Your task to perform on an android device: toggle show notifications on the lock screen Image 0: 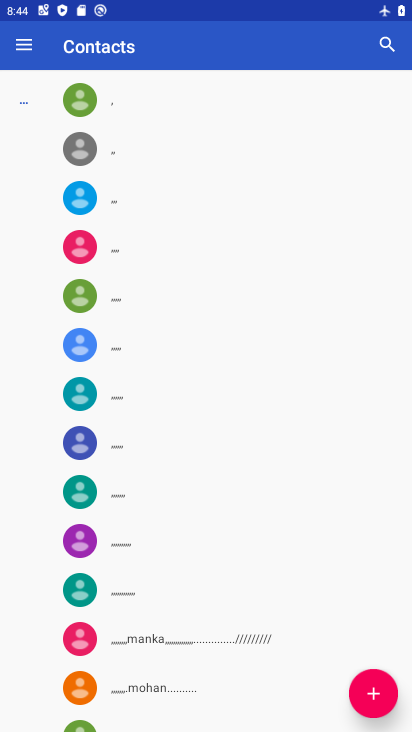
Step 0: press home button
Your task to perform on an android device: toggle show notifications on the lock screen Image 1: 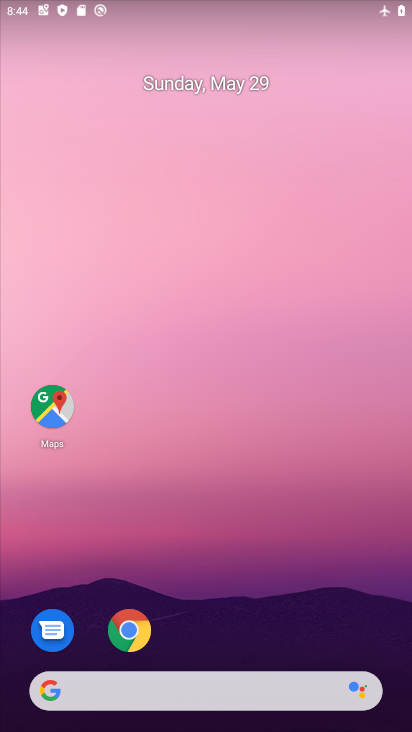
Step 1: drag from (214, 657) to (226, 309)
Your task to perform on an android device: toggle show notifications on the lock screen Image 2: 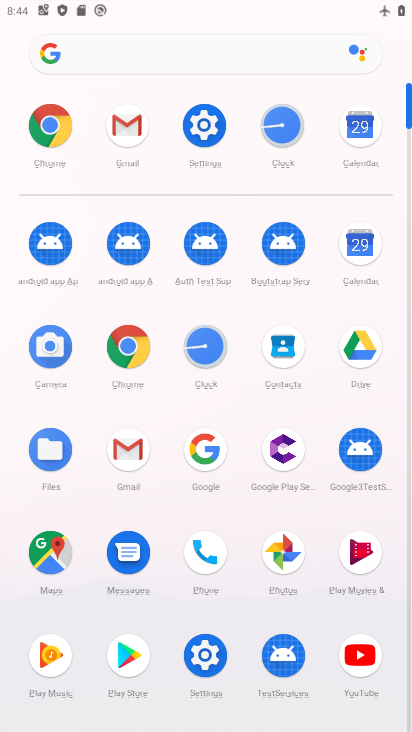
Step 2: click (198, 130)
Your task to perform on an android device: toggle show notifications on the lock screen Image 3: 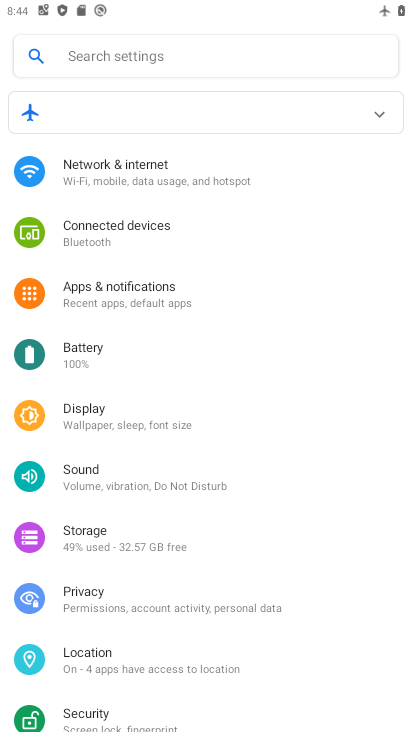
Step 3: drag from (142, 540) to (131, 444)
Your task to perform on an android device: toggle show notifications on the lock screen Image 4: 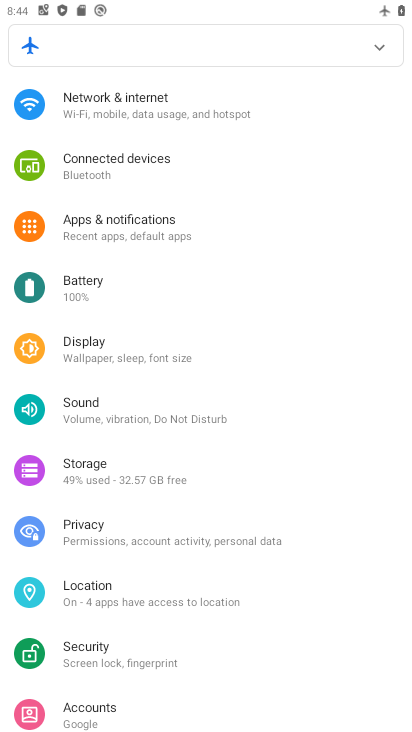
Step 4: click (75, 209)
Your task to perform on an android device: toggle show notifications on the lock screen Image 5: 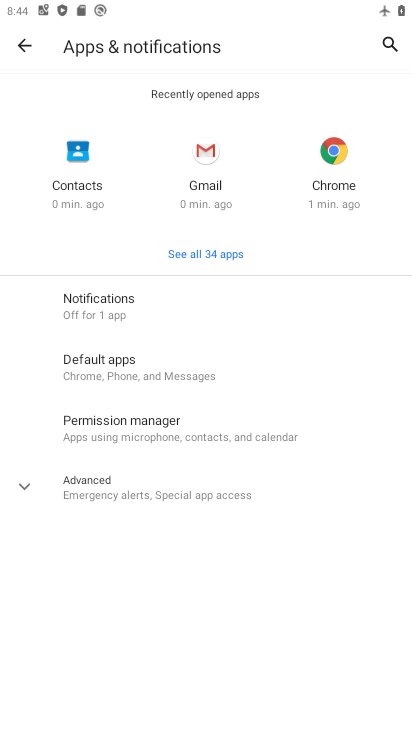
Step 5: click (103, 300)
Your task to perform on an android device: toggle show notifications on the lock screen Image 6: 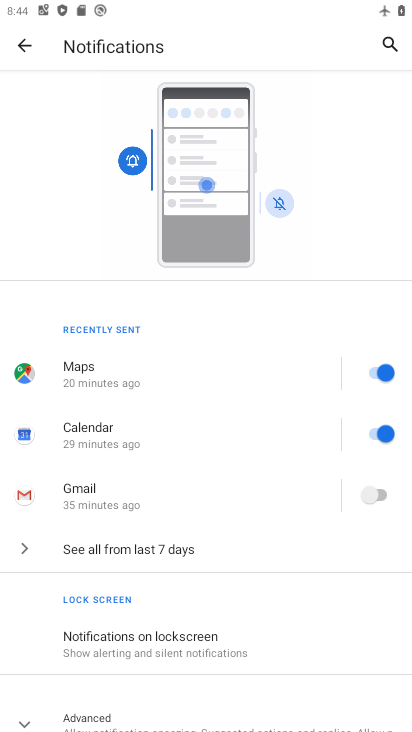
Step 6: click (65, 661)
Your task to perform on an android device: toggle show notifications on the lock screen Image 7: 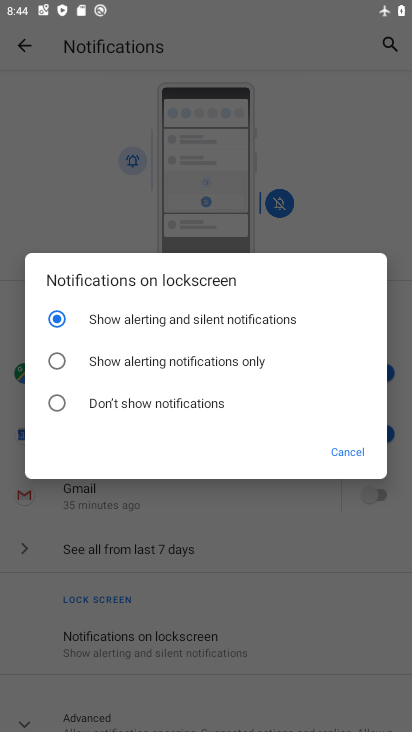
Step 7: click (128, 309)
Your task to perform on an android device: toggle show notifications on the lock screen Image 8: 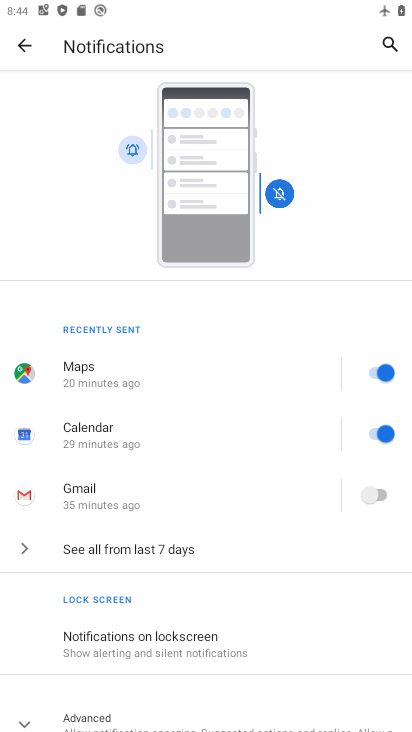
Step 8: click (94, 637)
Your task to perform on an android device: toggle show notifications on the lock screen Image 9: 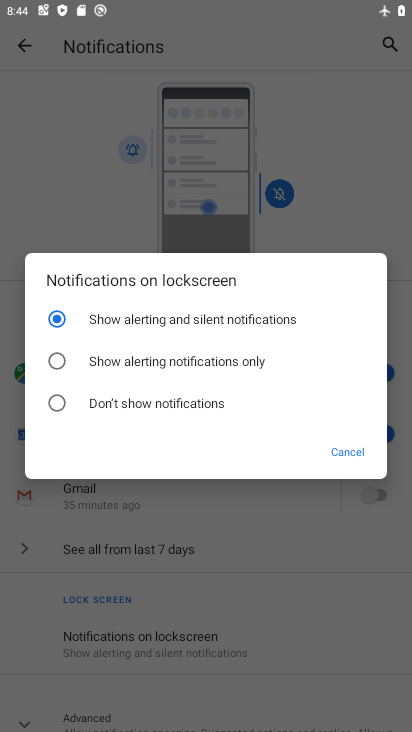
Step 9: click (124, 359)
Your task to perform on an android device: toggle show notifications on the lock screen Image 10: 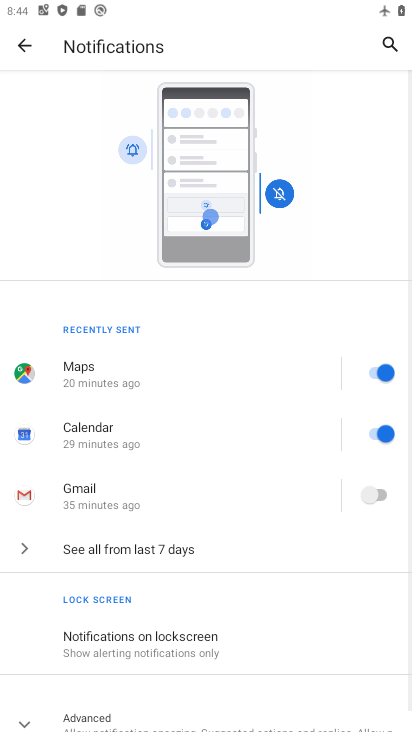
Step 10: task complete